Your task to perform on an android device: Open eBay Image 0: 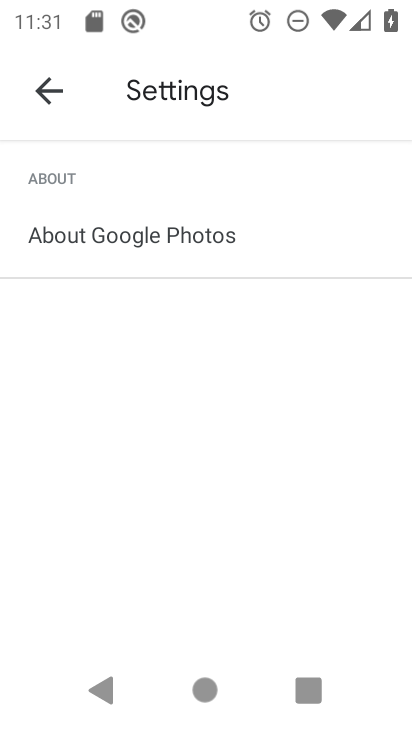
Step 0: press home button
Your task to perform on an android device: Open eBay Image 1: 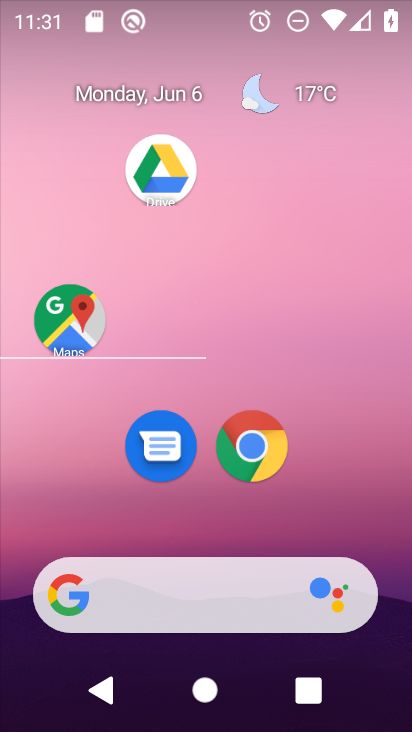
Step 1: click (260, 437)
Your task to perform on an android device: Open eBay Image 2: 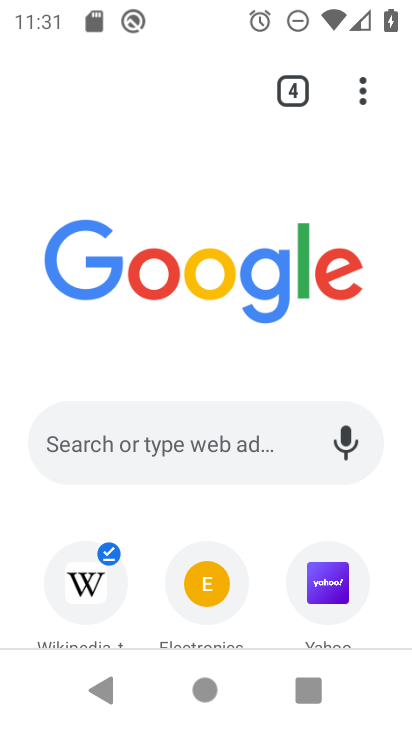
Step 2: click (161, 424)
Your task to perform on an android device: Open eBay Image 3: 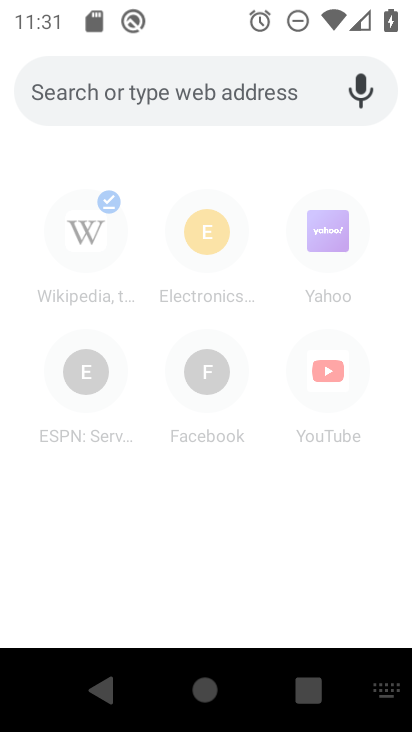
Step 3: type "ebah"
Your task to perform on an android device: Open eBay Image 4: 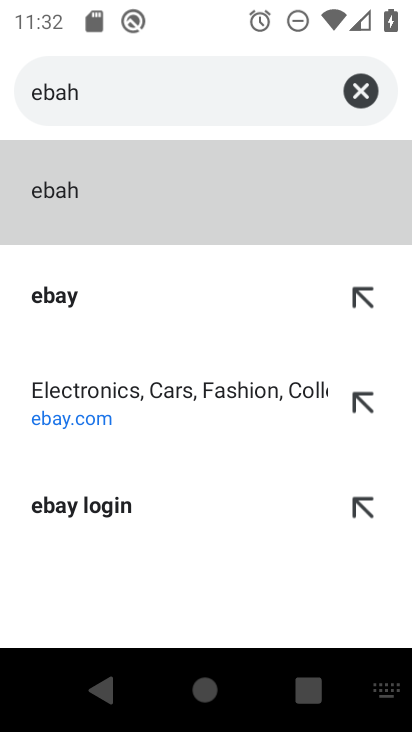
Step 4: click (232, 430)
Your task to perform on an android device: Open eBay Image 5: 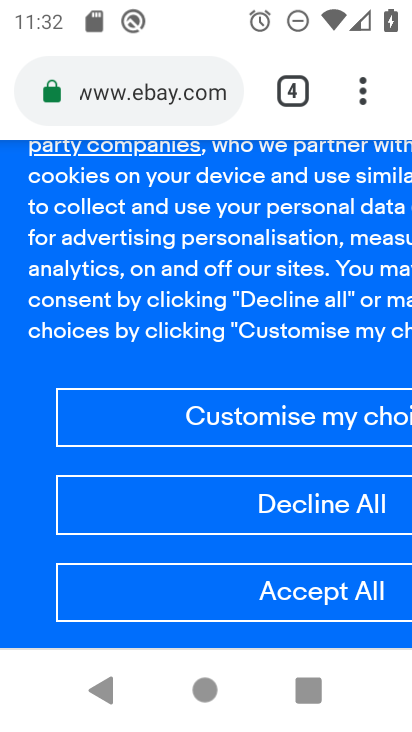
Step 5: task complete